Your task to perform on an android device: toggle wifi Image 0: 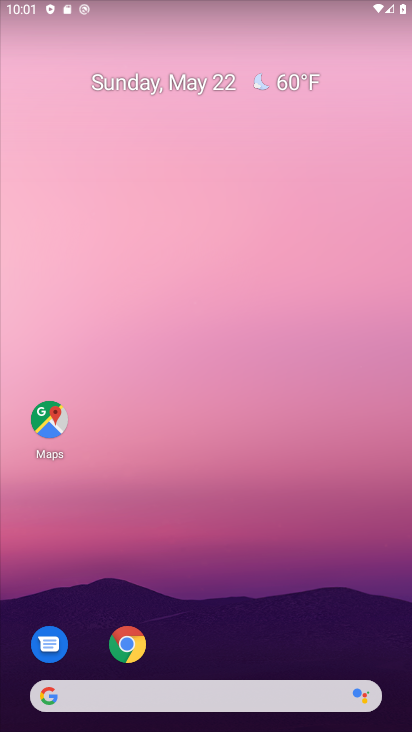
Step 0: drag from (195, 675) to (298, 339)
Your task to perform on an android device: toggle wifi Image 1: 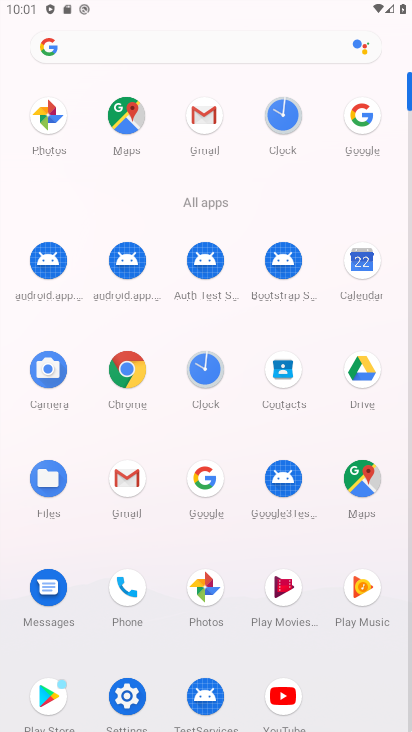
Step 1: click (125, 699)
Your task to perform on an android device: toggle wifi Image 2: 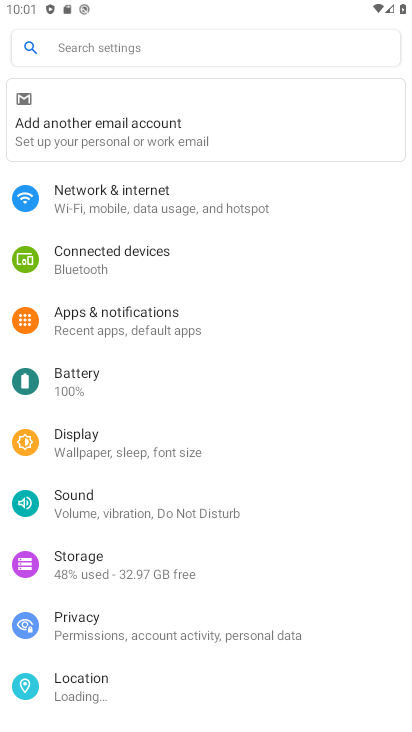
Step 2: click (134, 189)
Your task to perform on an android device: toggle wifi Image 3: 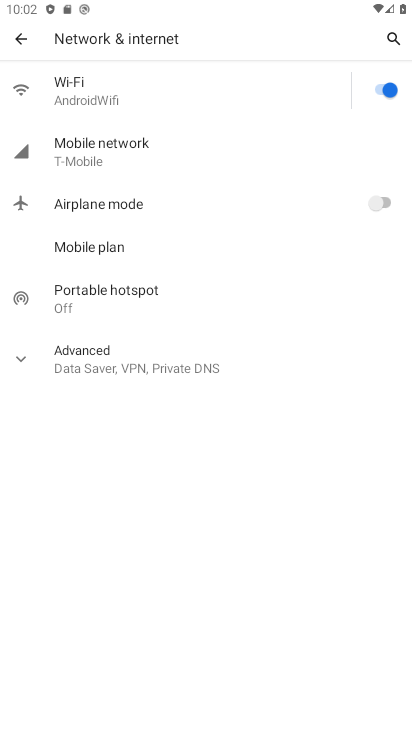
Step 3: click (108, 365)
Your task to perform on an android device: toggle wifi Image 4: 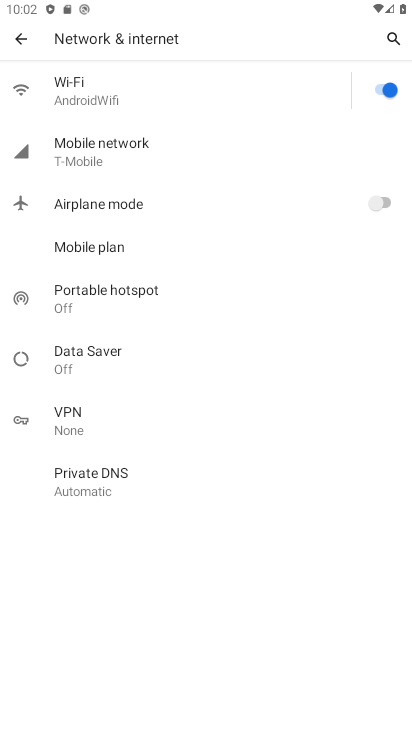
Step 4: click (175, 85)
Your task to perform on an android device: toggle wifi Image 5: 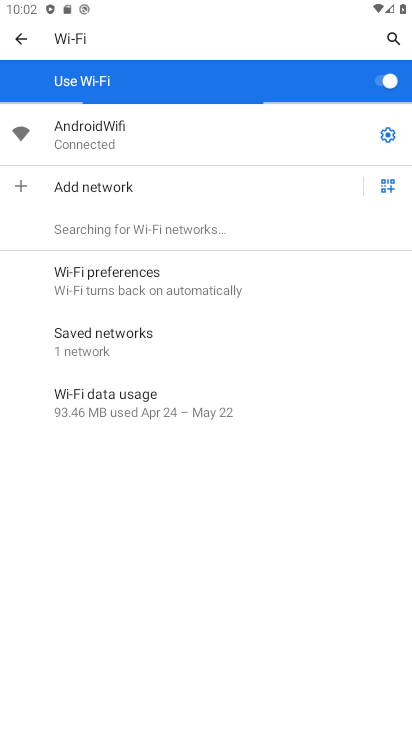
Step 5: click (381, 84)
Your task to perform on an android device: toggle wifi Image 6: 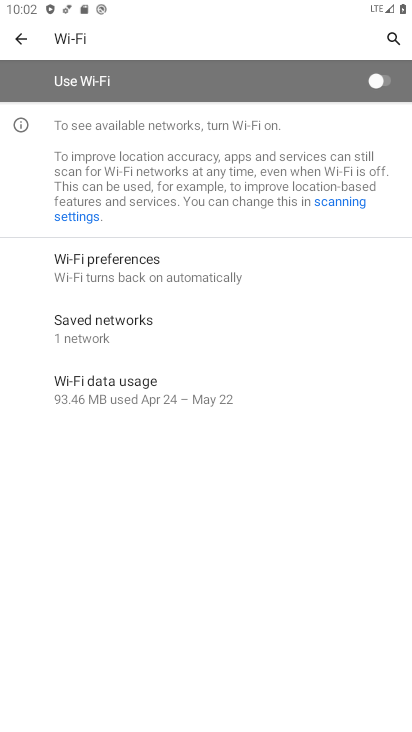
Step 6: task complete